Your task to perform on an android device: change keyboard looks Image 0: 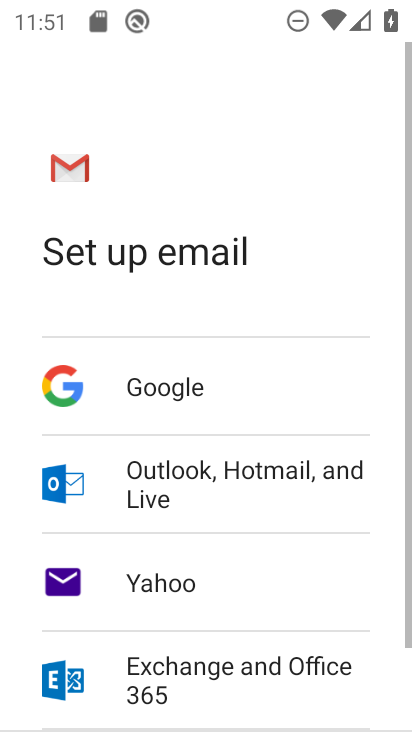
Step 0: press home button
Your task to perform on an android device: change keyboard looks Image 1: 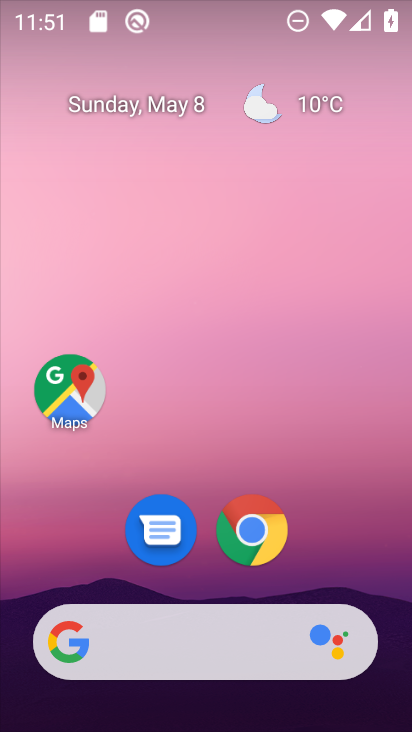
Step 1: drag from (193, 577) to (209, 145)
Your task to perform on an android device: change keyboard looks Image 2: 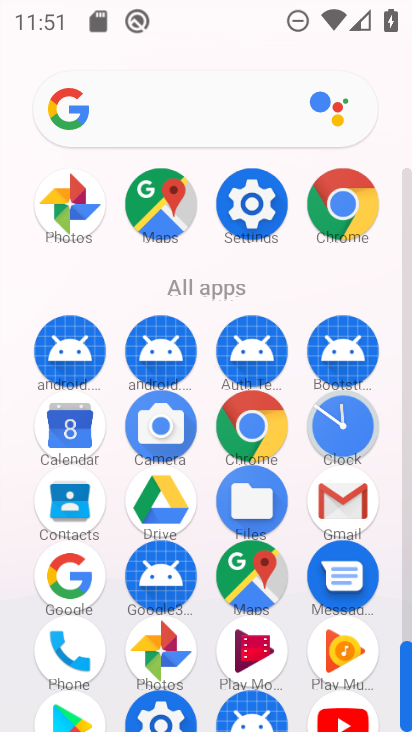
Step 2: click (240, 190)
Your task to perform on an android device: change keyboard looks Image 3: 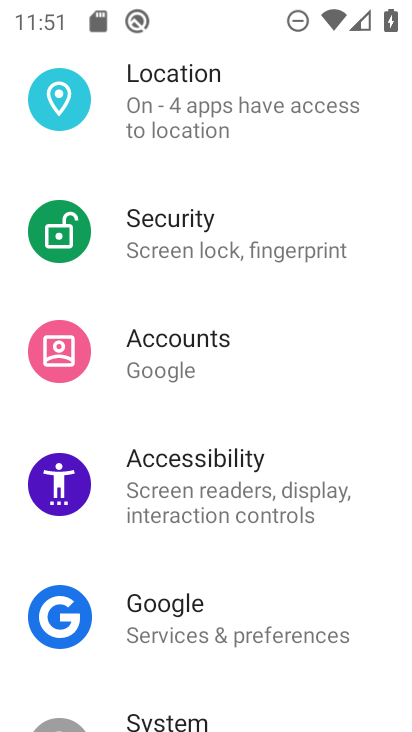
Step 3: drag from (156, 633) to (190, 239)
Your task to perform on an android device: change keyboard looks Image 4: 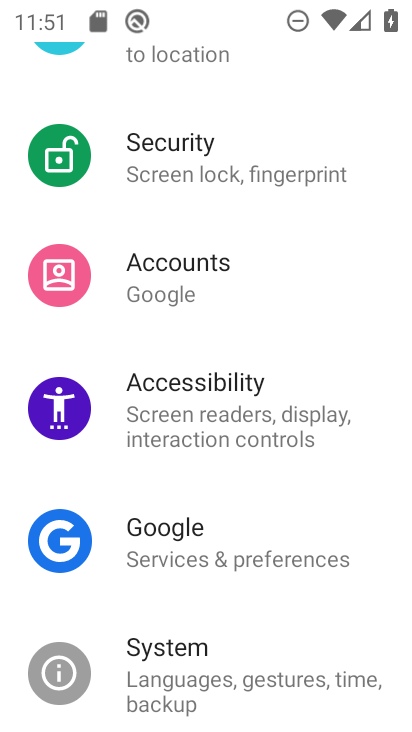
Step 4: drag from (197, 695) to (269, 186)
Your task to perform on an android device: change keyboard looks Image 5: 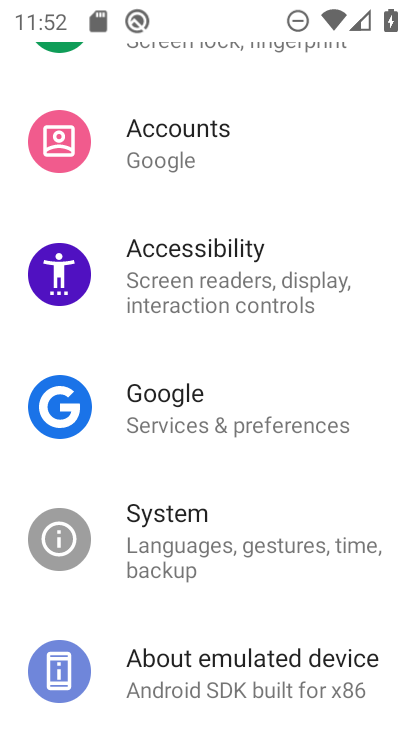
Step 5: click (188, 549)
Your task to perform on an android device: change keyboard looks Image 6: 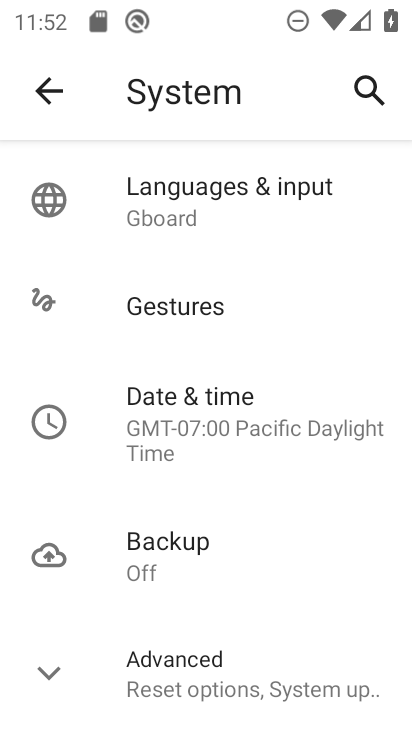
Step 6: click (230, 215)
Your task to perform on an android device: change keyboard looks Image 7: 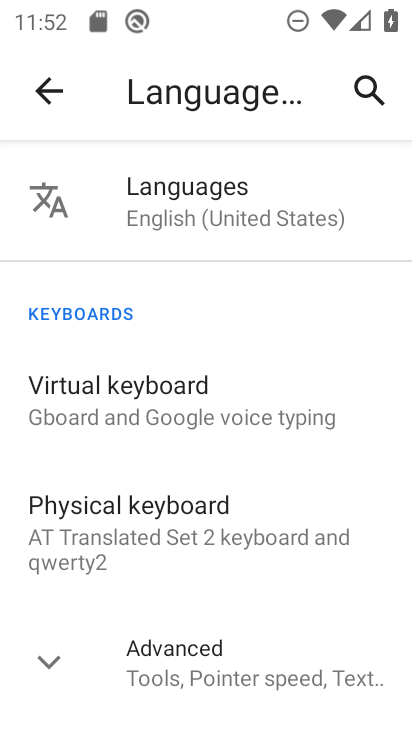
Step 7: click (190, 391)
Your task to perform on an android device: change keyboard looks Image 8: 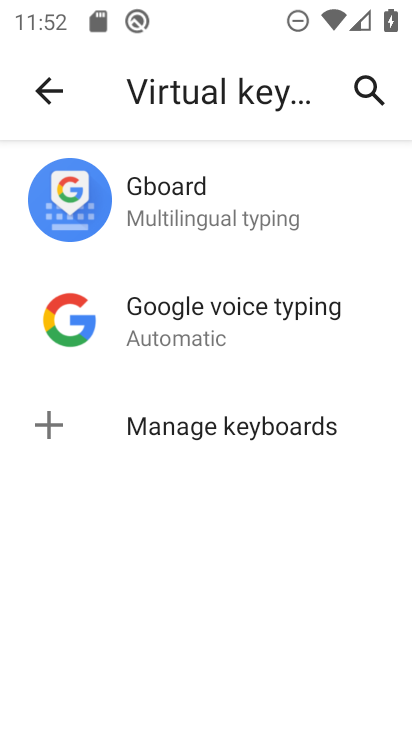
Step 8: click (206, 214)
Your task to perform on an android device: change keyboard looks Image 9: 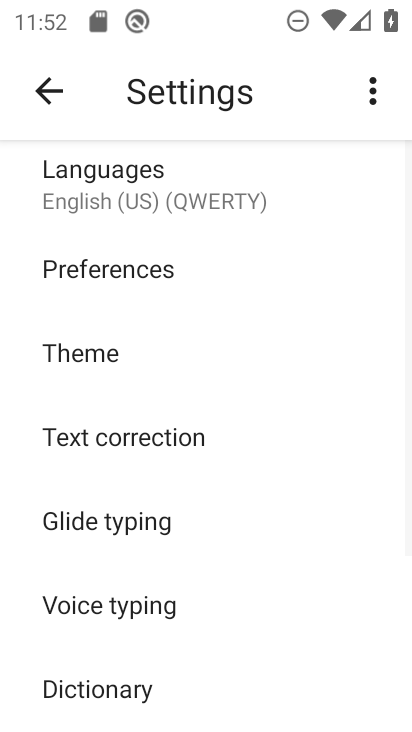
Step 9: click (164, 385)
Your task to perform on an android device: change keyboard looks Image 10: 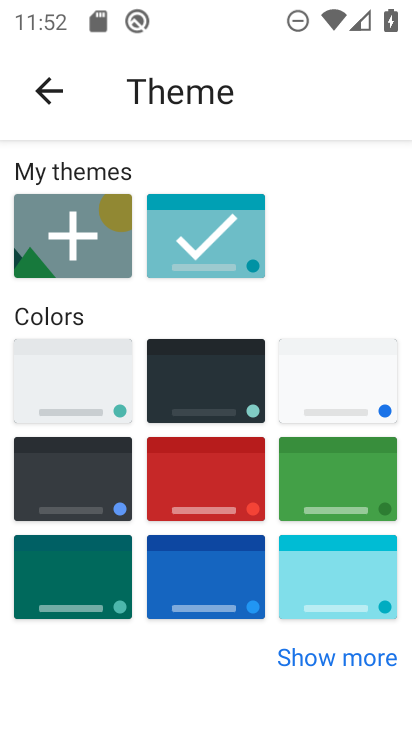
Step 10: click (86, 499)
Your task to perform on an android device: change keyboard looks Image 11: 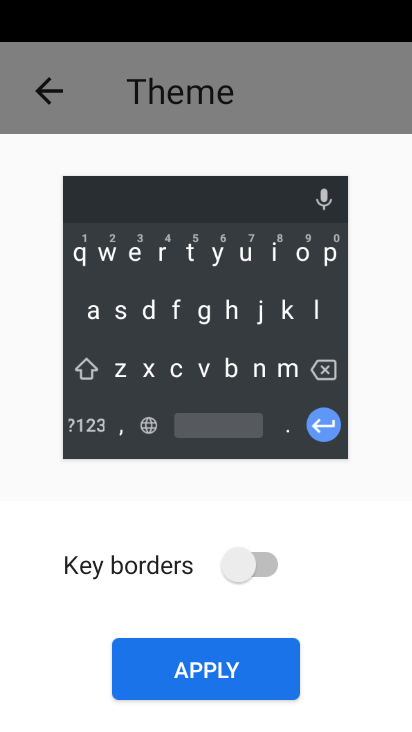
Step 11: click (216, 658)
Your task to perform on an android device: change keyboard looks Image 12: 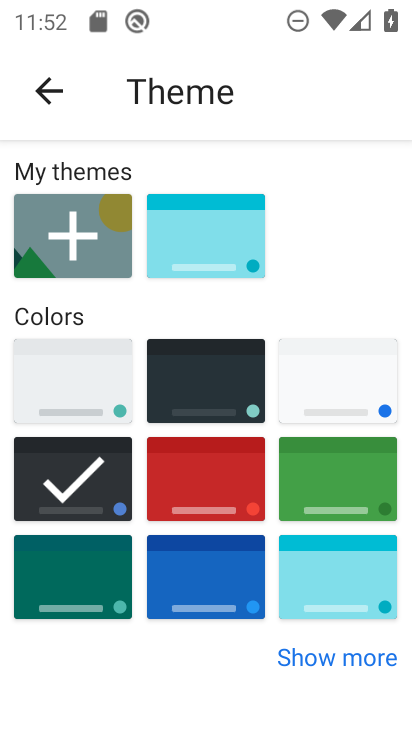
Step 12: task complete